Your task to perform on an android device: turn off picture-in-picture Image 0: 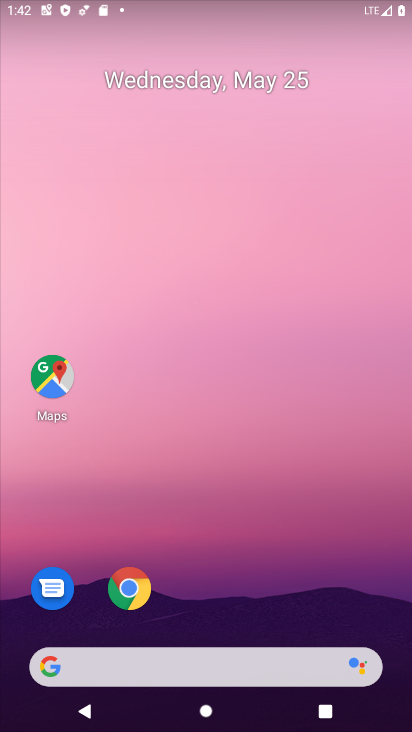
Step 0: click (134, 585)
Your task to perform on an android device: turn off picture-in-picture Image 1: 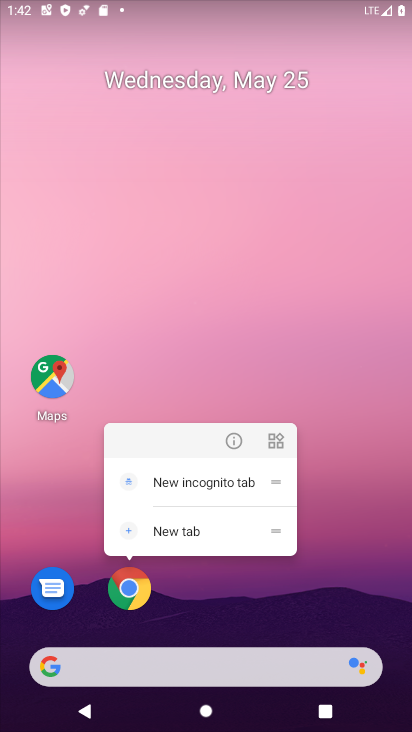
Step 1: click (236, 441)
Your task to perform on an android device: turn off picture-in-picture Image 2: 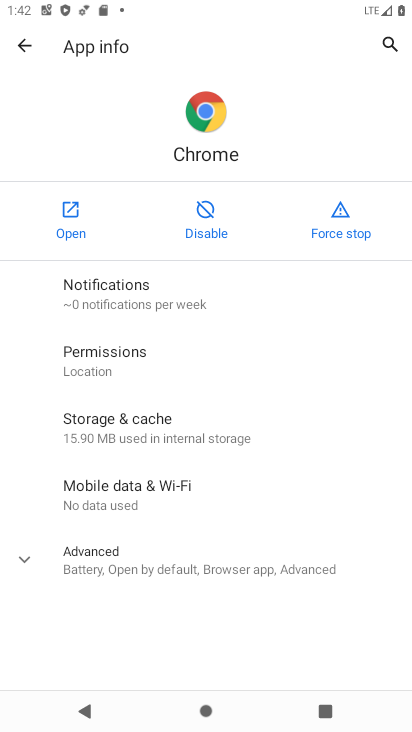
Step 2: drag from (197, 509) to (175, 289)
Your task to perform on an android device: turn off picture-in-picture Image 3: 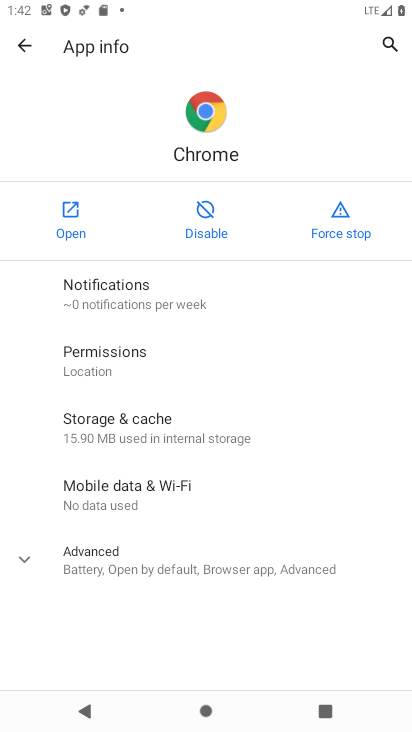
Step 3: click (25, 567)
Your task to perform on an android device: turn off picture-in-picture Image 4: 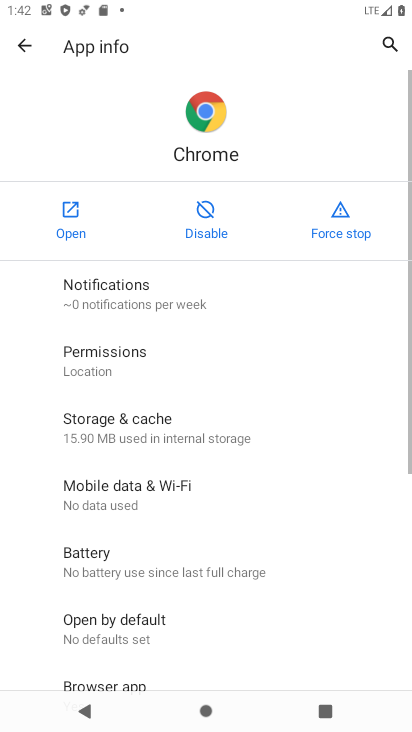
Step 4: drag from (155, 564) to (152, 168)
Your task to perform on an android device: turn off picture-in-picture Image 5: 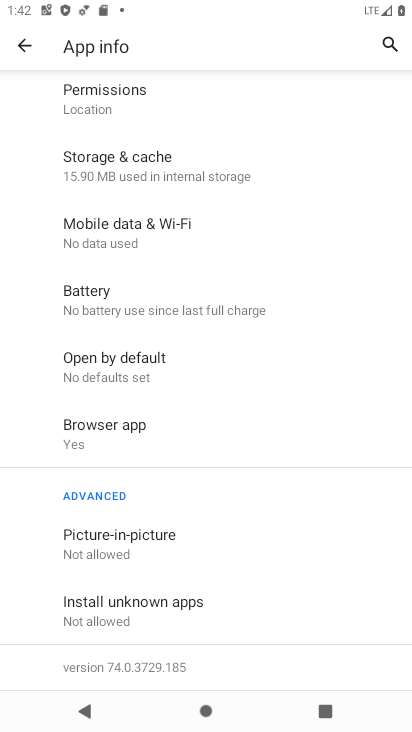
Step 5: click (144, 535)
Your task to perform on an android device: turn off picture-in-picture Image 6: 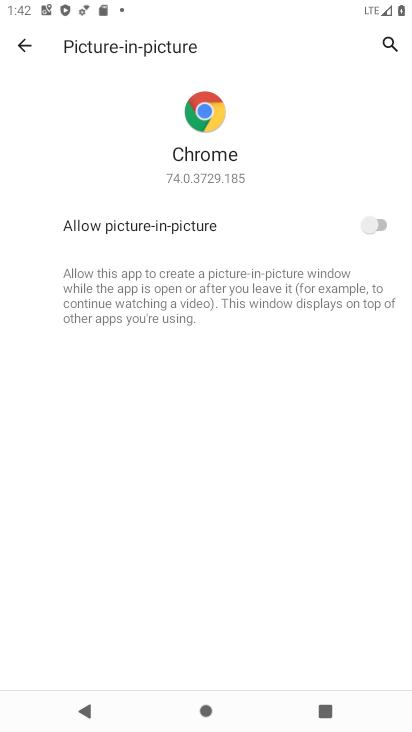
Step 6: task complete